Your task to perform on an android device: Open calendar and show me the first week of next month Image 0: 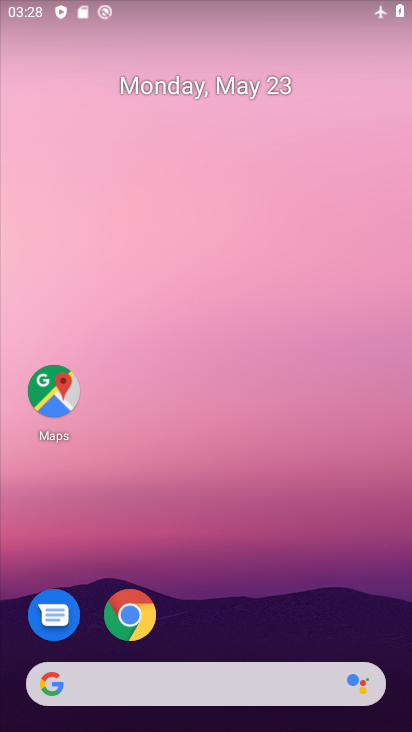
Step 0: drag from (282, 611) to (304, 188)
Your task to perform on an android device: Open calendar and show me the first week of next month Image 1: 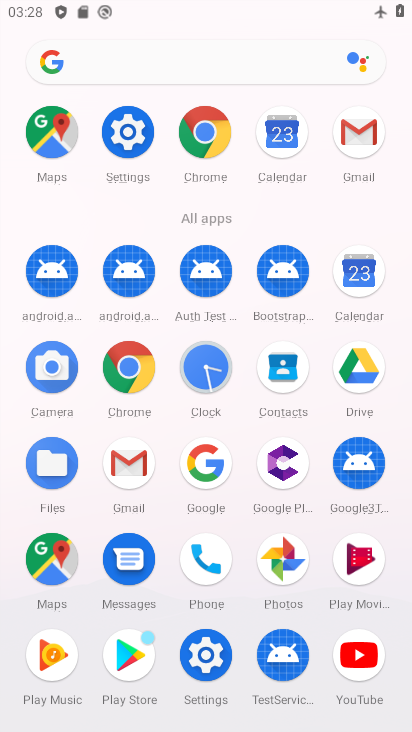
Step 1: click (356, 270)
Your task to perform on an android device: Open calendar and show me the first week of next month Image 2: 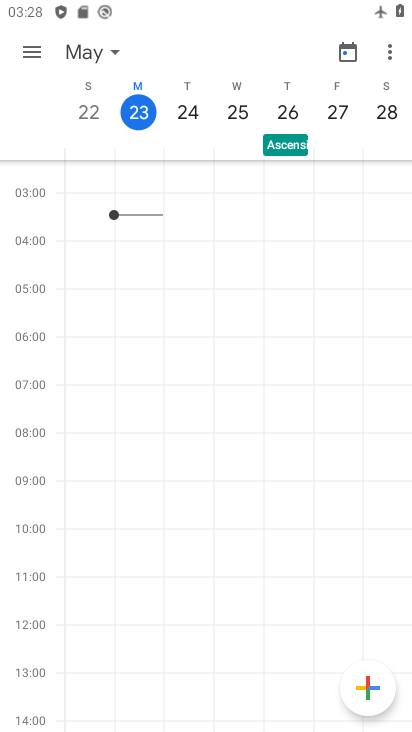
Step 2: click (21, 56)
Your task to perform on an android device: Open calendar and show me the first week of next month Image 3: 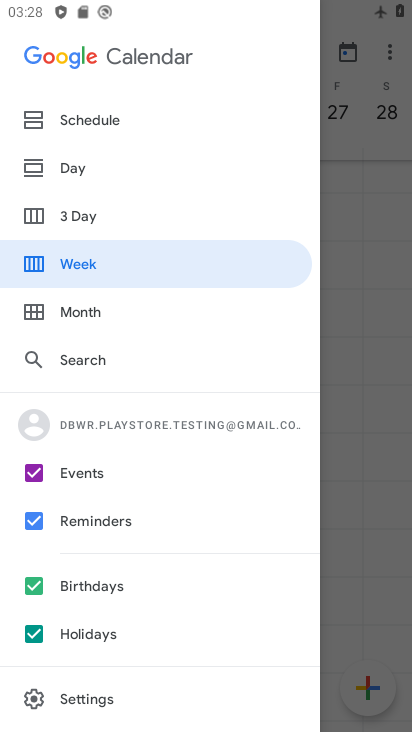
Step 3: click (97, 308)
Your task to perform on an android device: Open calendar and show me the first week of next month Image 4: 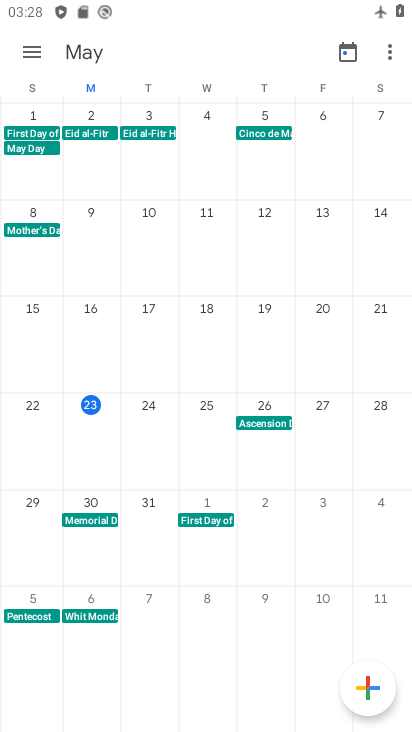
Step 4: task complete